Your task to perform on an android device: What is the recent news? Image 0: 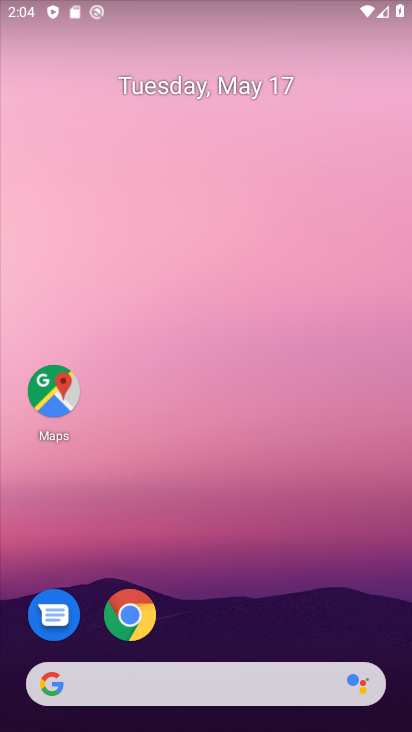
Step 0: drag from (3, 282) to (357, 254)
Your task to perform on an android device: What is the recent news? Image 1: 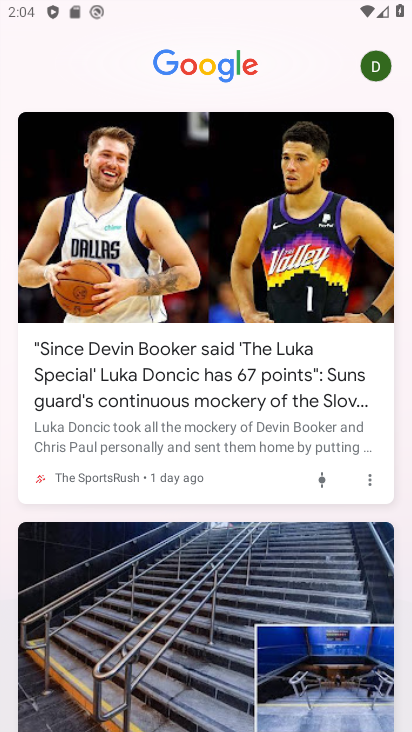
Step 1: task complete